Your task to perform on an android device: How do I get to the nearest Home Depot? Image 0: 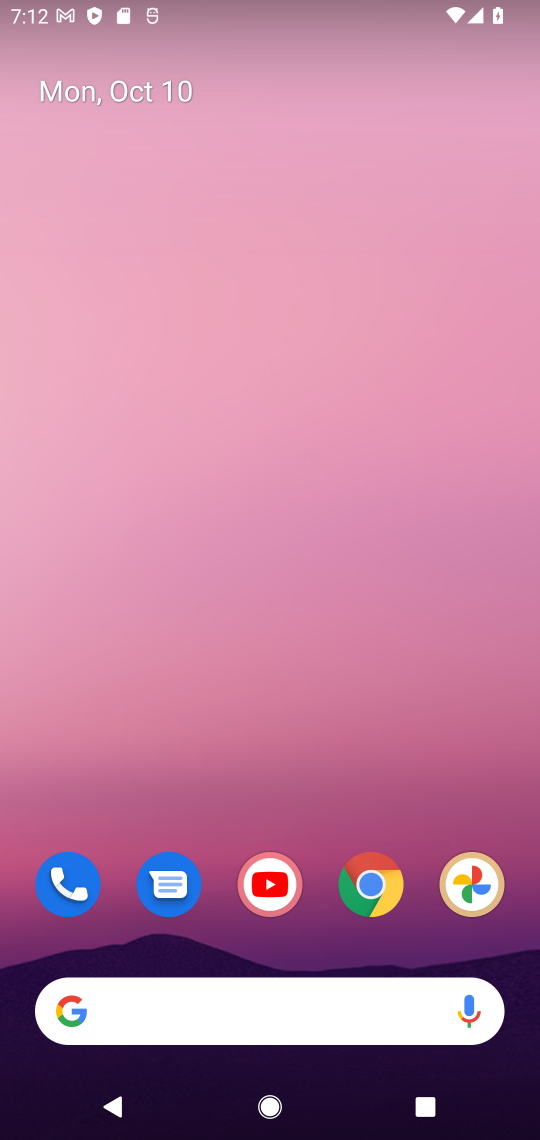
Step 0: click (361, 896)
Your task to perform on an android device: How do I get to the nearest Home Depot? Image 1: 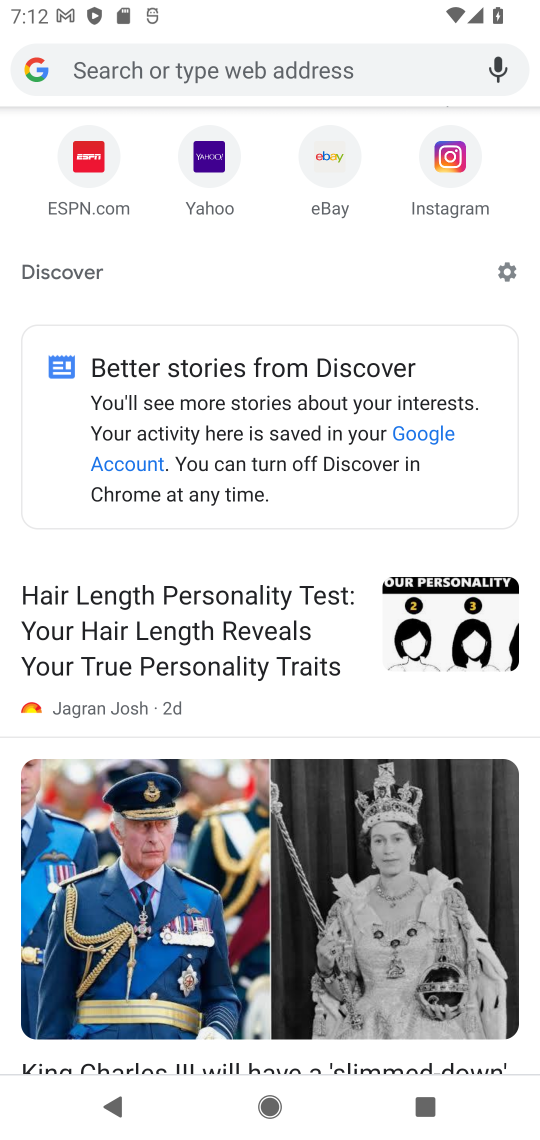
Step 1: click (270, 64)
Your task to perform on an android device: How do I get to the nearest Home Depot? Image 2: 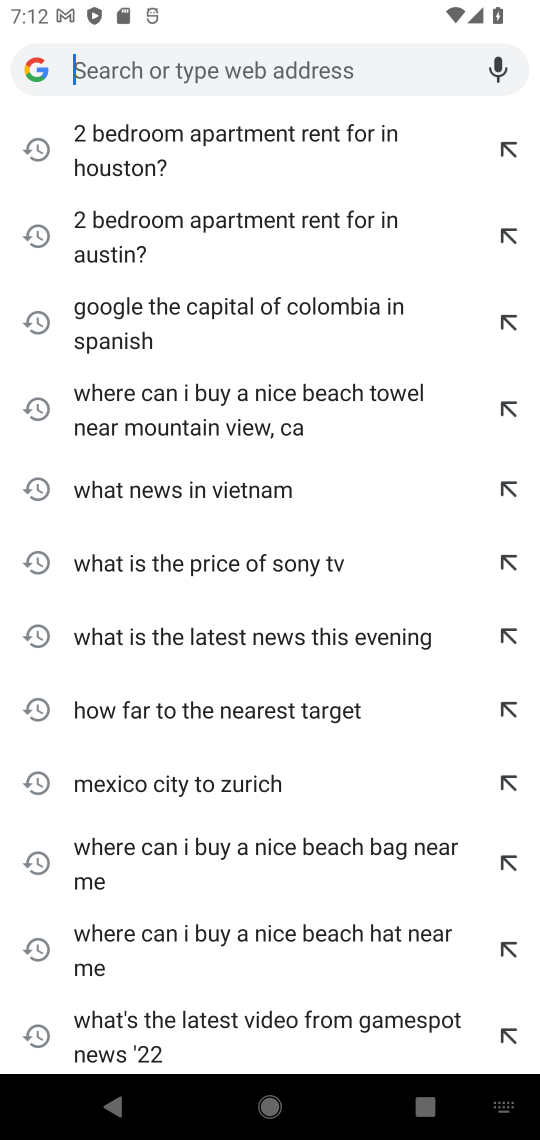
Step 2: type "nearest home depot"
Your task to perform on an android device: How do I get to the nearest Home Depot? Image 3: 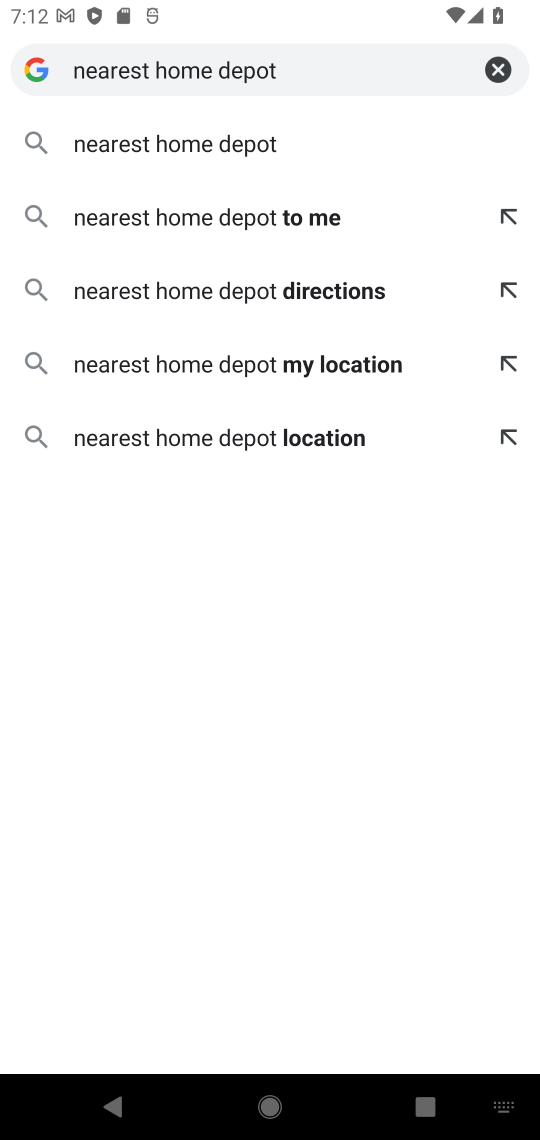
Step 3: click (367, 293)
Your task to perform on an android device: How do I get to the nearest Home Depot? Image 4: 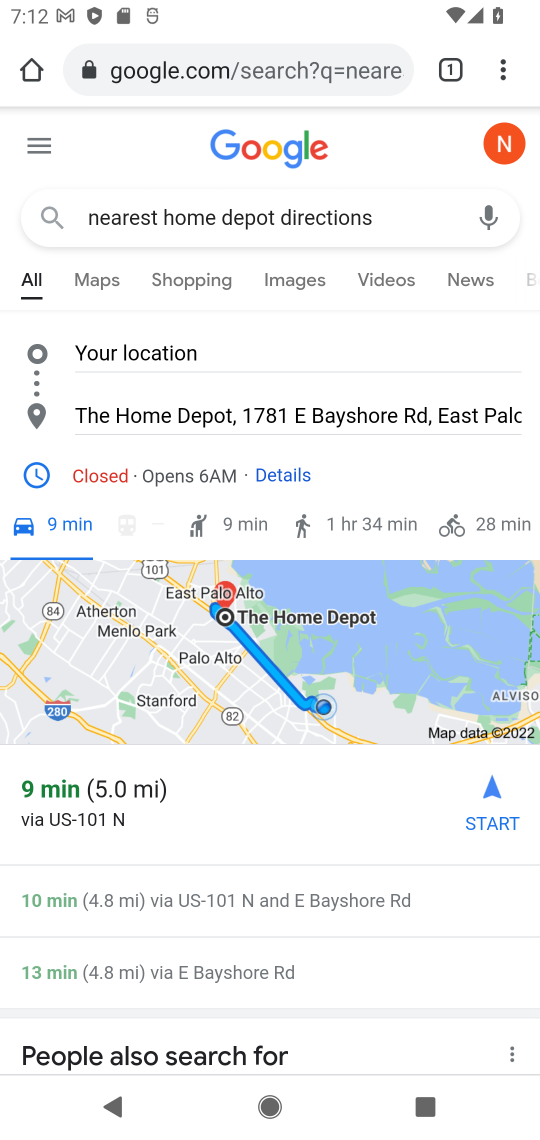
Step 4: click (495, 796)
Your task to perform on an android device: How do I get to the nearest Home Depot? Image 5: 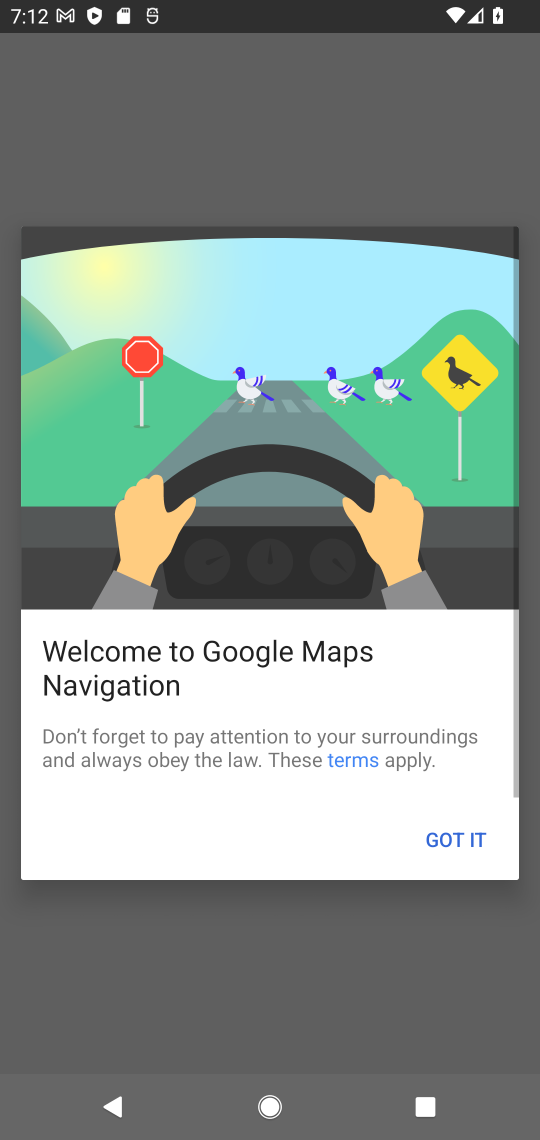
Step 5: click (444, 834)
Your task to perform on an android device: How do I get to the nearest Home Depot? Image 6: 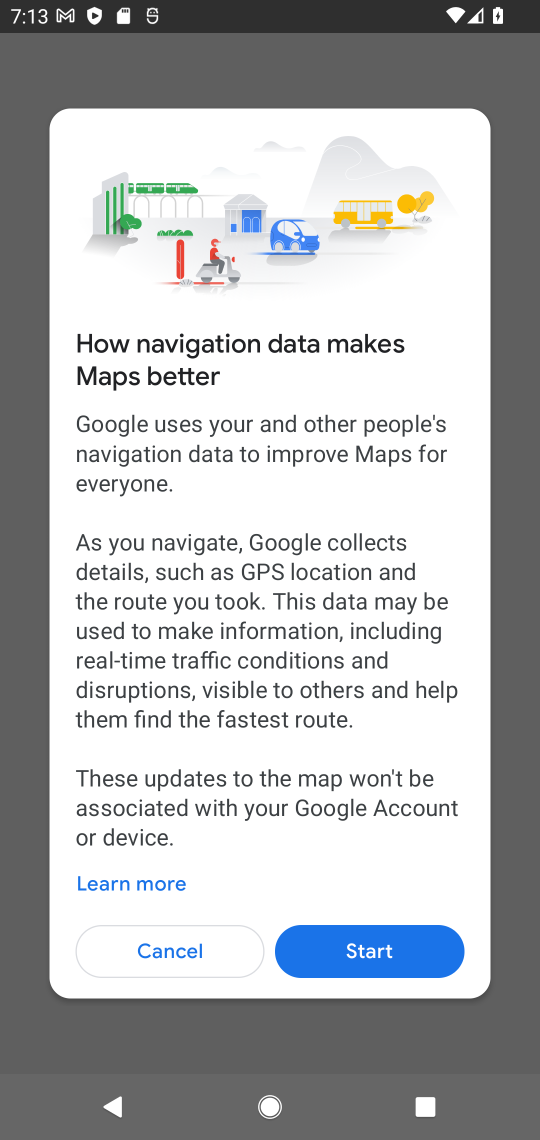
Step 6: click (325, 958)
Your task to perform on an android device: How do I get to the nearest Home Depot? Image 7: 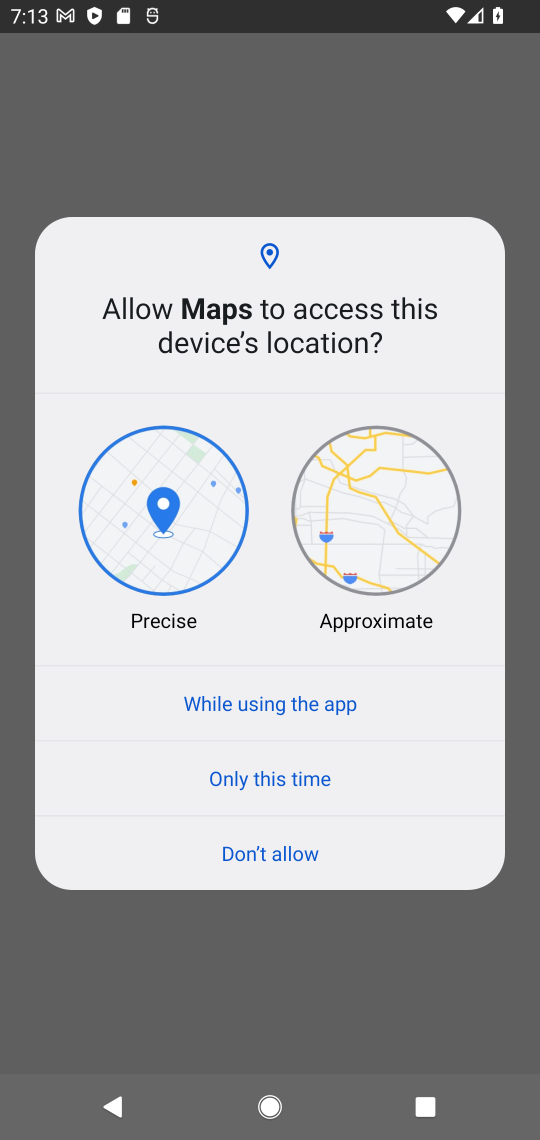
Step 7: click (337, 684)
Your task to perform on an android device: How do I get to the nearest Home Depot? Image 8: 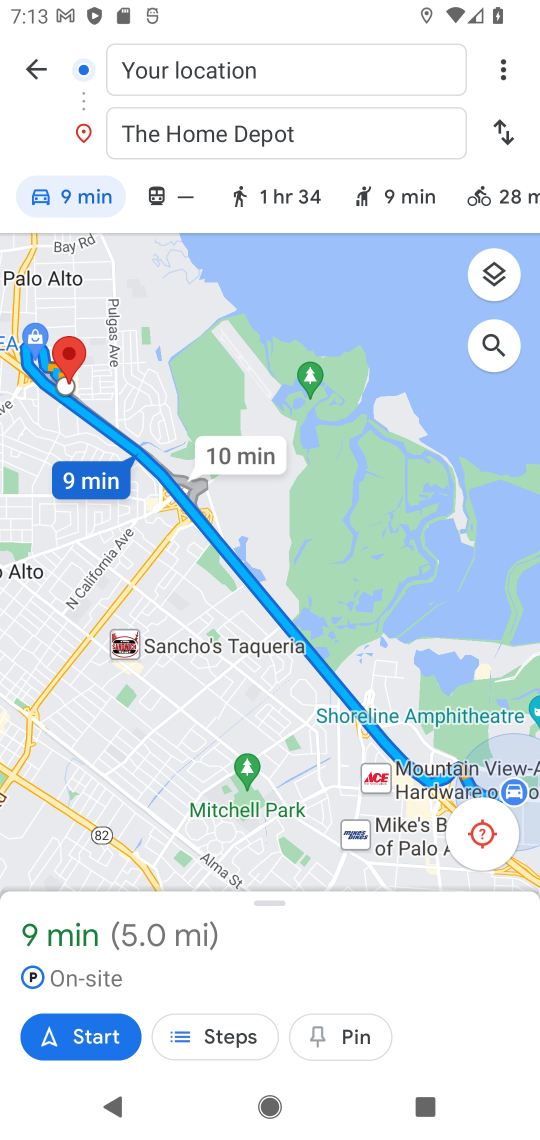
Step 8: task complete